Your task to perform on an android device: When is my next appointment? Image 0: 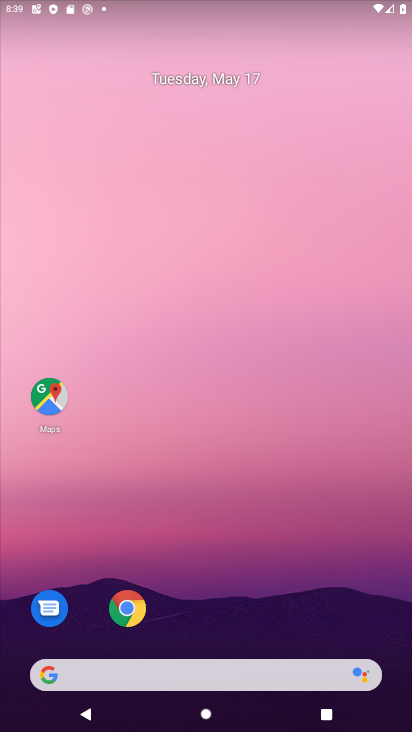
Step 0: click (228, 75)
Your task to perform on an android device: When is my next appointment? Image 1: 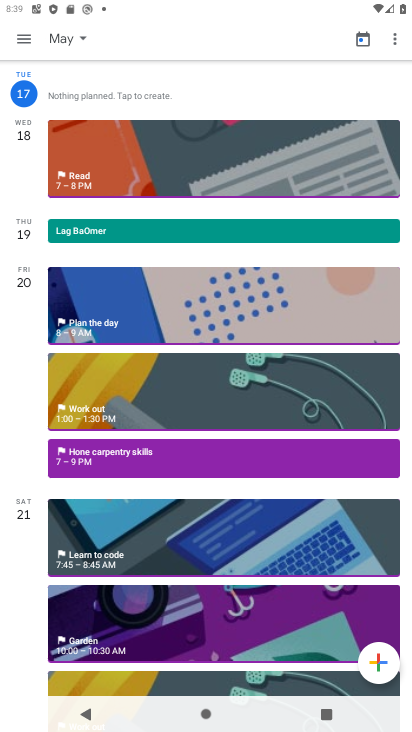
Step 1: task complete